Your task to perform on an android device: change notification settings in the gmail app Image 0: 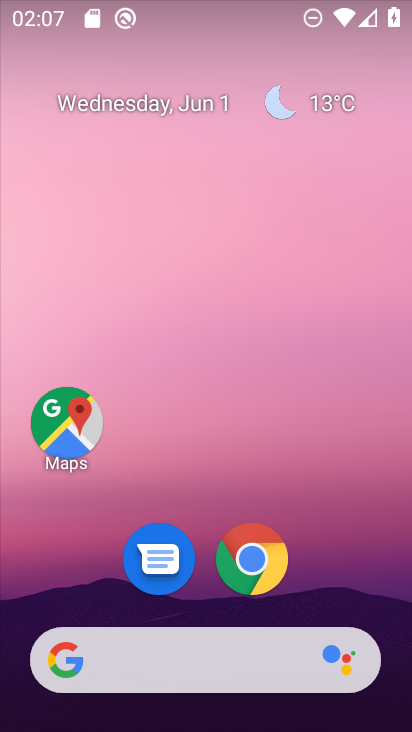
Step 0: drag from (404, 709) to (313, 208)
Your task to perform on an android device: change notification settings in the gmail app Image 1: 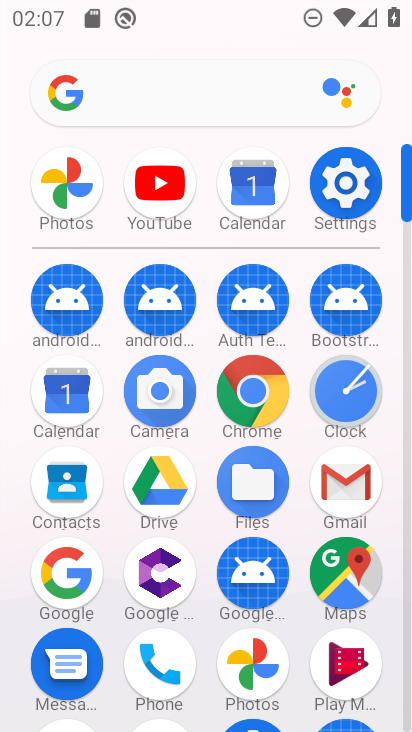
Step 1: click (338, 483)
Your task to perform on an android device: change notification settings in the gmail app Image 2: 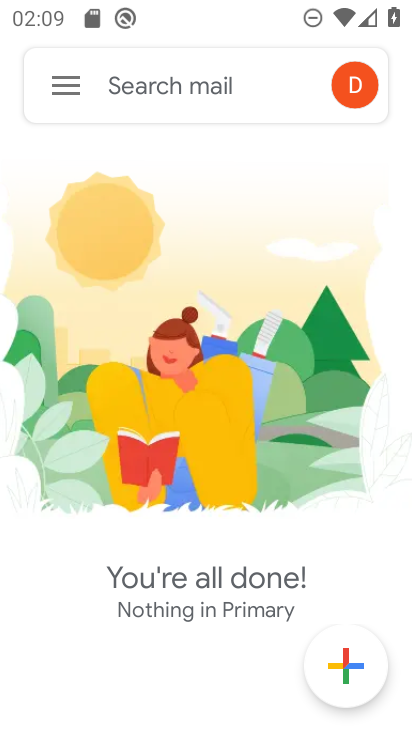
Step 2: click (52, 83)
Your task to perform on an android device: change notification settings in the gmail app Image 3: 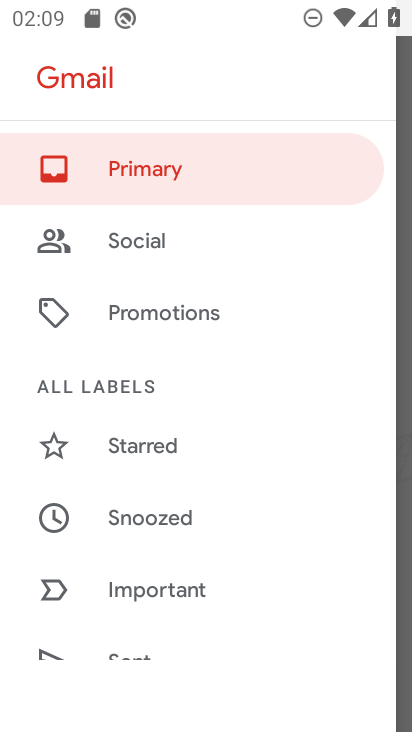
Step 3: drag from (253, 631) to (226, 196)
Your task to perform on an android device: change notification settings in the gmail app Image 4: 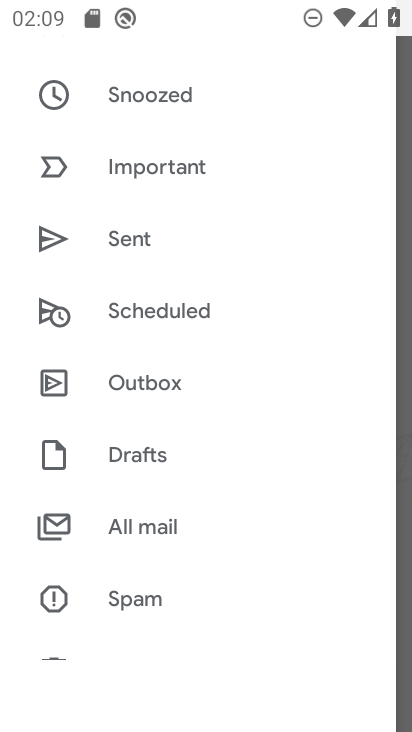
Step 4: drag from (215, 441) to (202, 169)
Your task to perform on an android device: change notification settings in the gmail app Image 5: 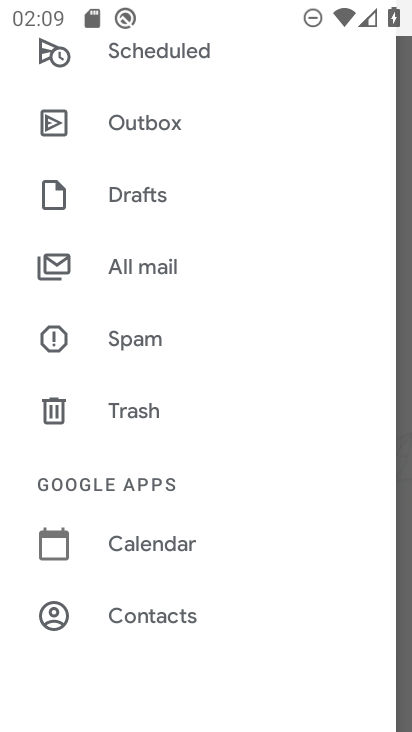
Step 5: drag from (239, 575) to (222, 216)
Your task to perform on an android device: change notification settings in the gmail app Image 6: 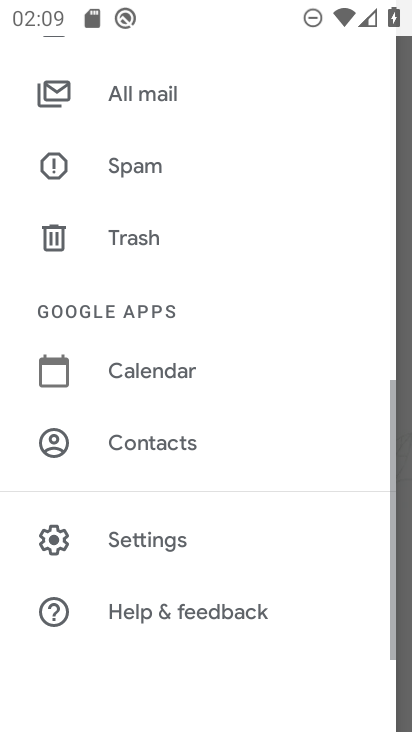
Step 6: click (162, 543)
Your task to perform on an android device: change notification settings in the gmail app Image 7: 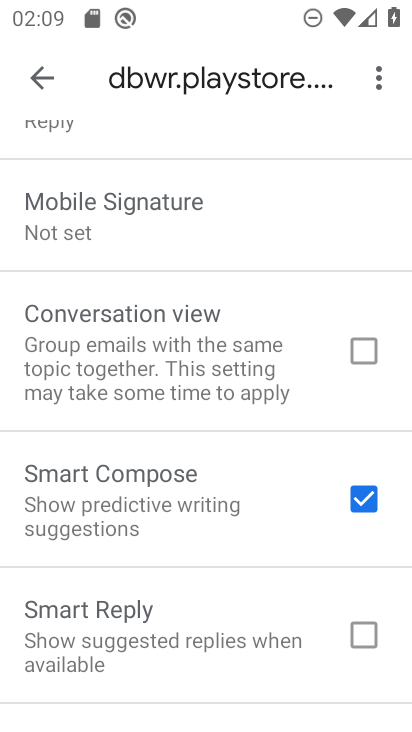
Step 7: click (38, 70)
Your task to perform on an android device: change notification settings in the gmail app Image 8: 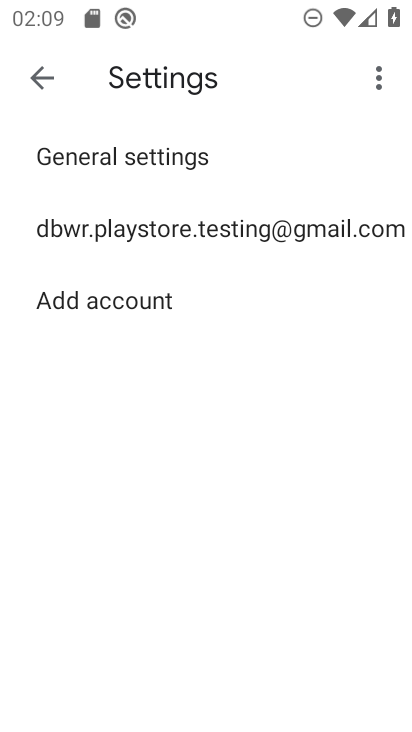
Step 8: click (65, 155)
Your task to perform on an android device: change notification settings in the gmail app Image 9: 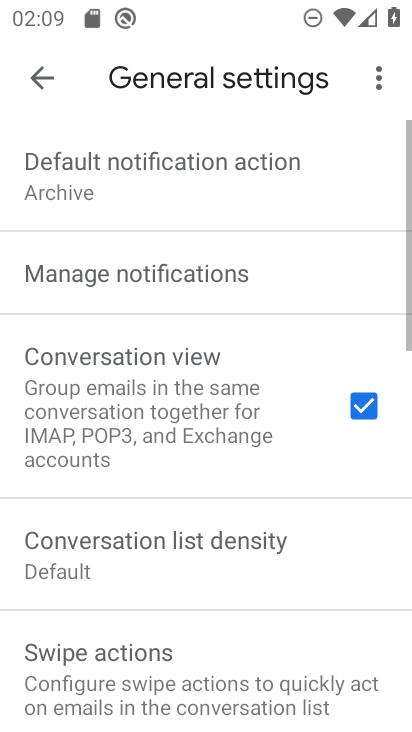
Step 9: click (83, 272)
Your task to perform on an android device: change notification settings in the gmail app Image 10: 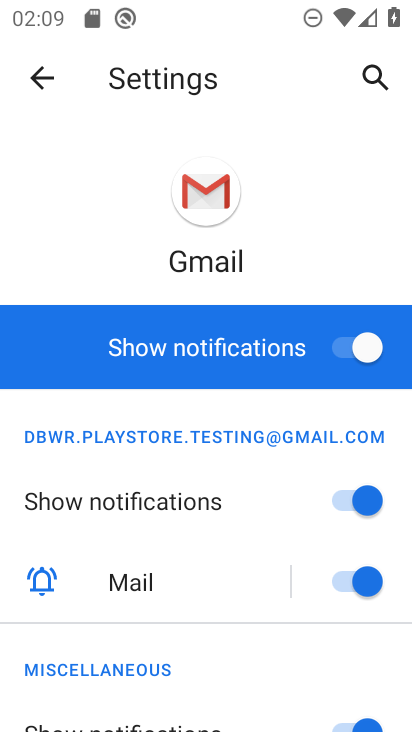
Step 10: click (348, 350)
Your task to perform on an android device: change notification settings in the gmail app Image 11: 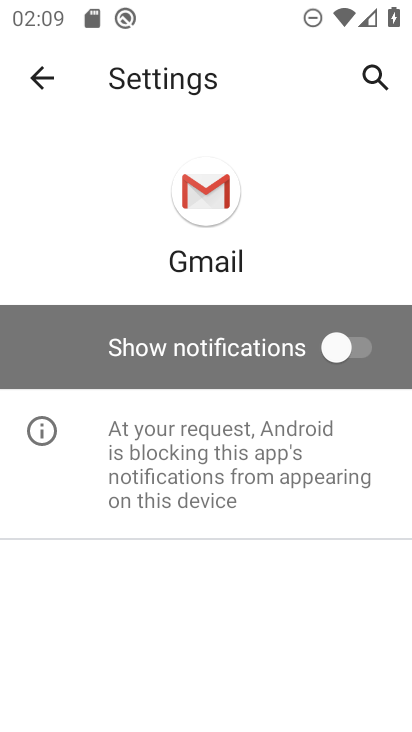
Step 11: task complete